Your task to perform on an android device: manage bookmarks in the chrome app Image 0: 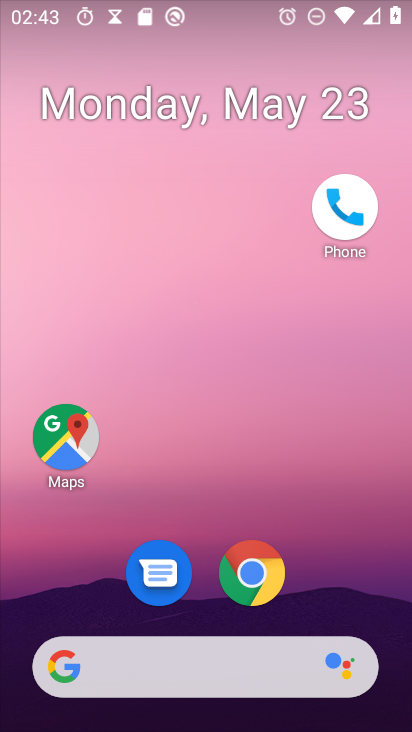
Step 0: press home button
Your task to perform on an android device: manage bookmarks in the chrome app Image 1: 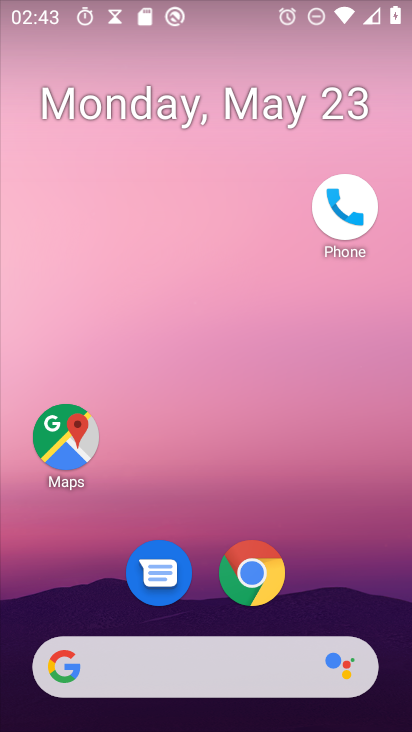
Step 1: click (238, 592)
Your task to perform on an android device: manage bookmarks in the chrome app Image 2: 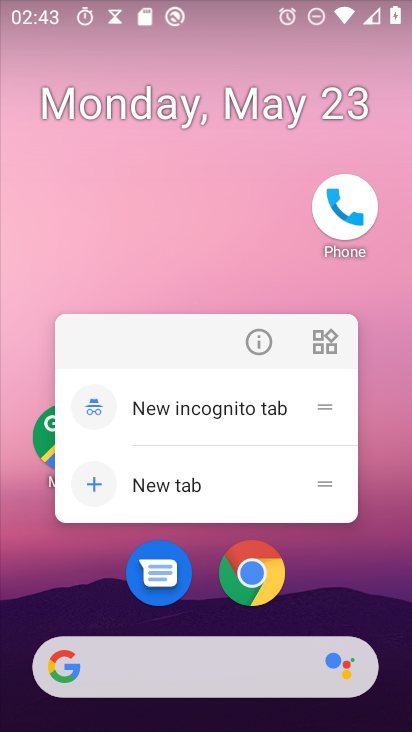
Step 2: click (262, 579)
Your task to perform on an android device: manage bookmarks in the chrome app Image 3: 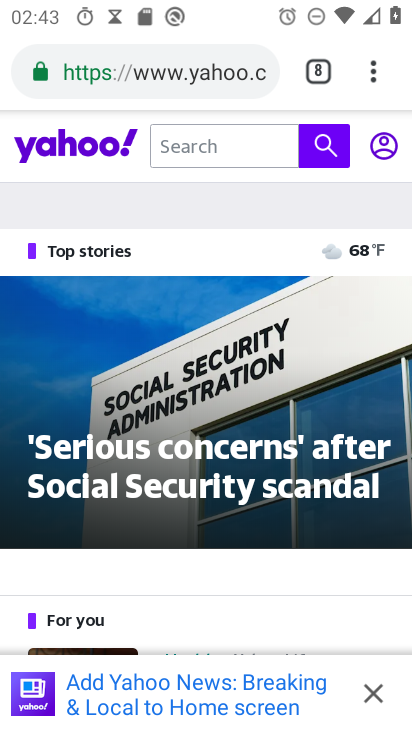
Step 3: task complete